Your task to perform on an android device: What's on my calendar today? Image 0: 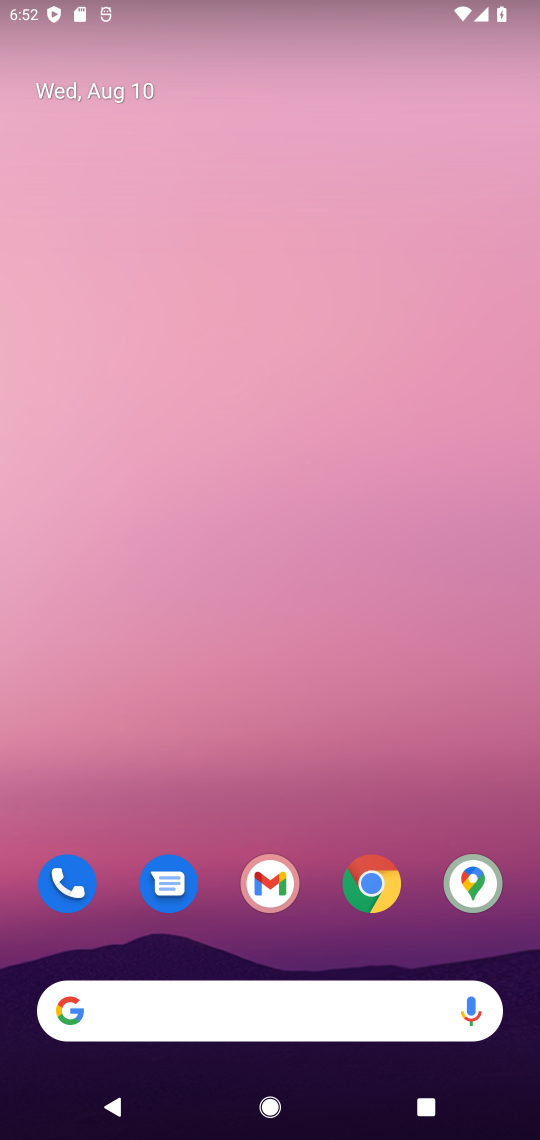
Step 0: click (92, 97)
Your task to perform on an android device: What's on my calendar today? Image 1: 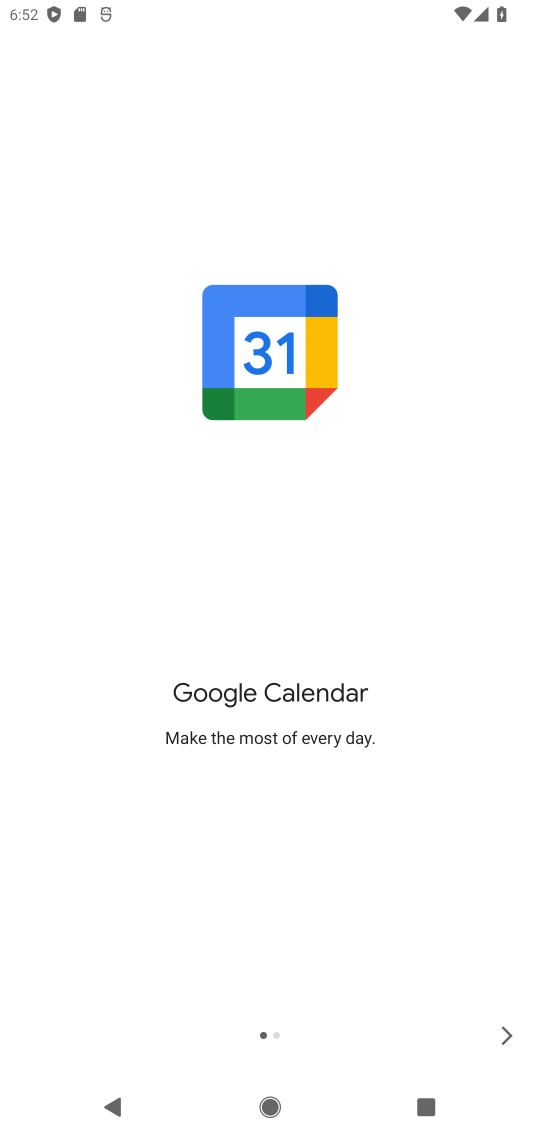
Step 1: click (508, 1025)
Your task to perform on an android device: What's on my calendar today? Image 2: 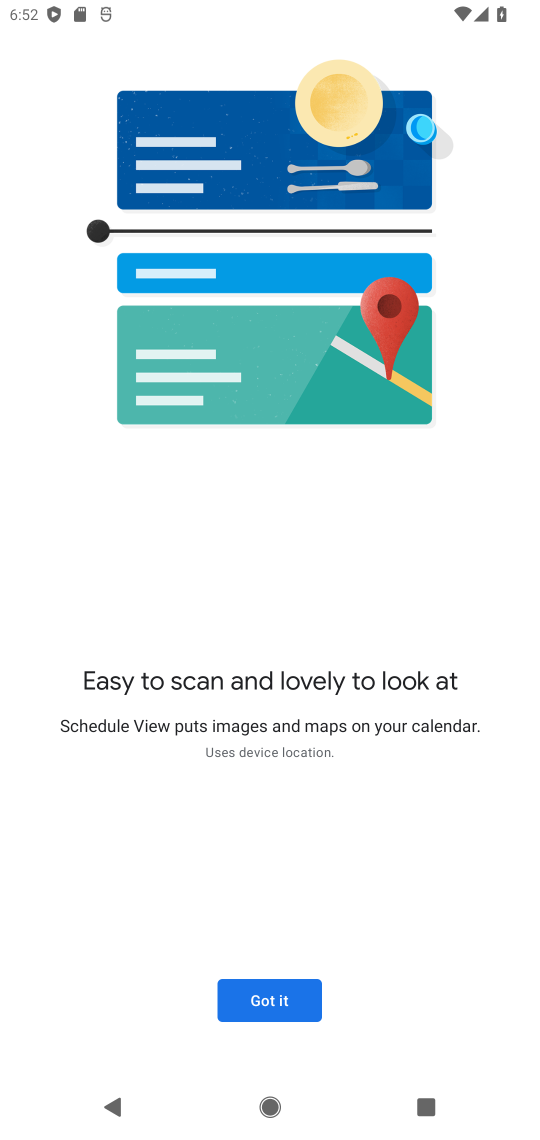
Step 2: click (306, 996)
Your task to perform on an android device: What's on my calendar today? Image 3: 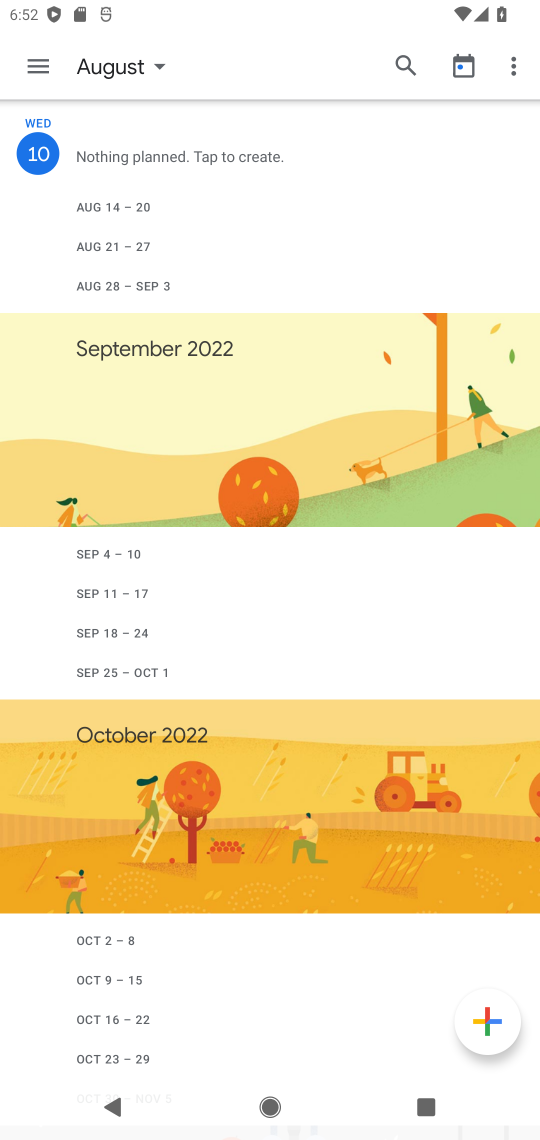
Step 3: task complete